Your task to perform on an android device: Search for Italian restaurants on Maps Image 0: 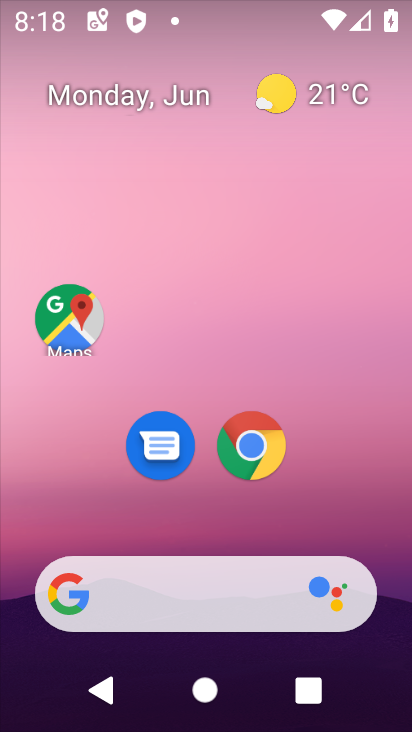
Step 0: click (73, 325)
Your task to perform on an android device: Search for Italian restaurants on Maps Image 1: 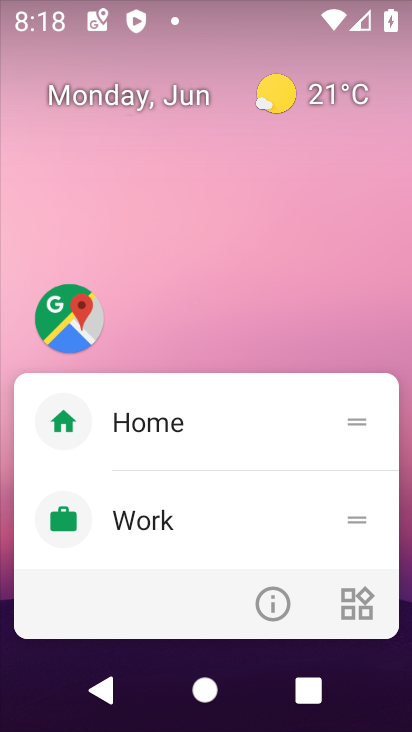
Step 1: click (74, 325)
Your task to perform on an android device: Search for Italian restaurants on Maps Image 2: 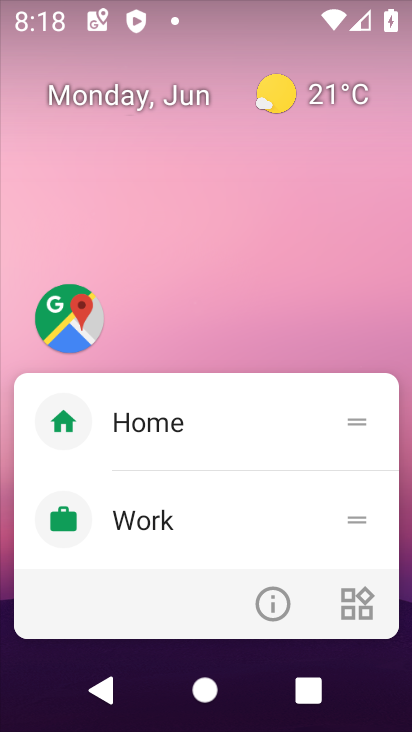
Step 2: click (74, 325)
Your task to perform on an android device: Search for Italian restaurants on Maps Image 3: 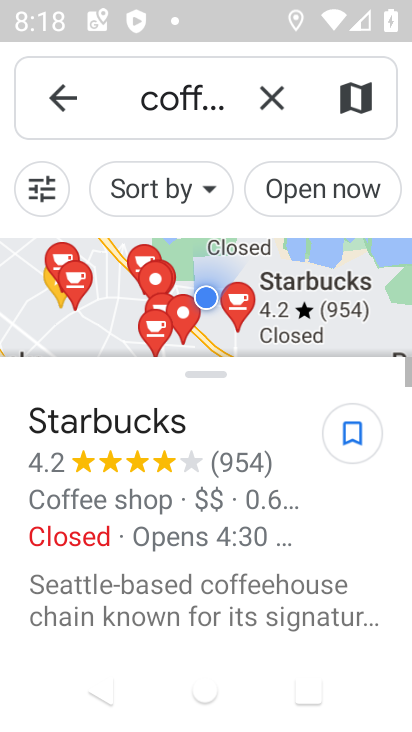
Step 3: click (260, 104)
Your task to perform on an android device: Search for Italian restaurants on Maps Image 4: 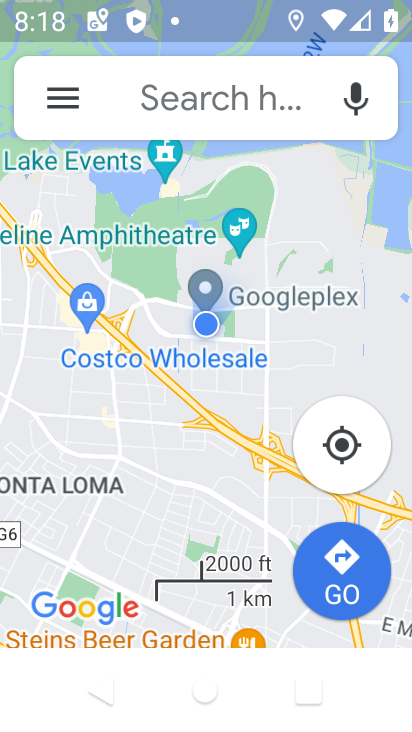
Step 4: click (242, 97)
Your task to perform on an android device: Search for Italian restaurants on Maps Image 5: 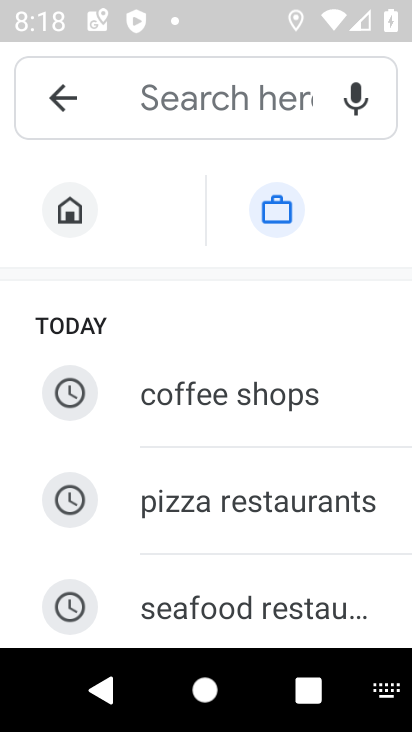
Step 5: type "italian restaurants"
Your task to perform on an android device: Search for Italian restaurants on Maps Image 6: 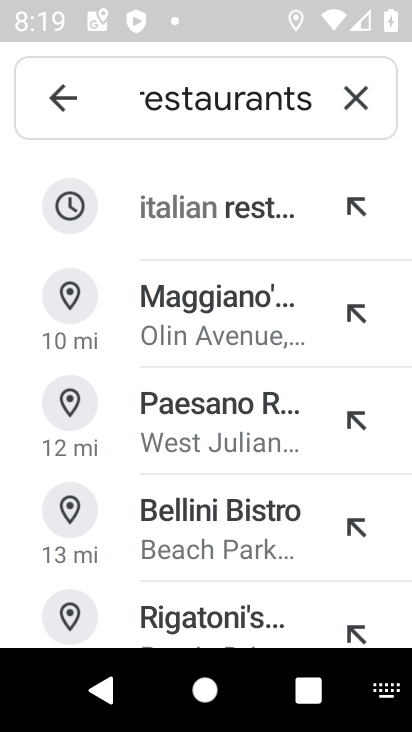
Step 6: click (233, 225)
Your task to perform on an android device: Search for Italian restaurants on Maps Image 7: 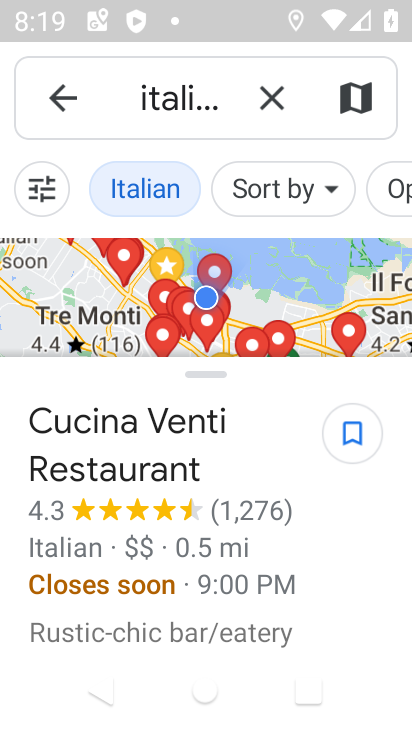
Step 7: task complete